Your task to perform on an android device: Play the last video I watched on Youtube Image 0: 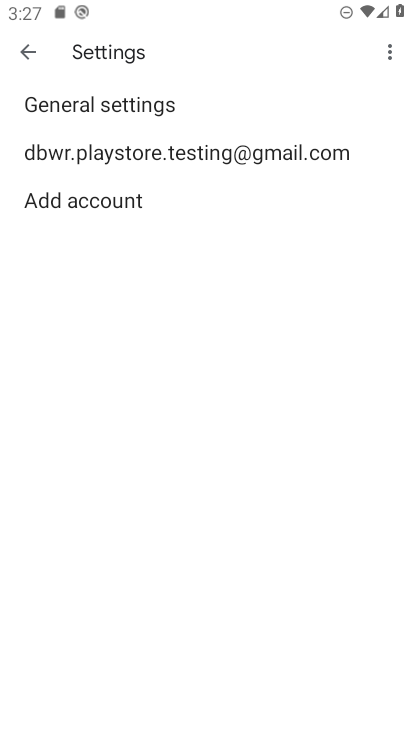
Step 0: press home button
Your task to perform on an android device: Play the last video I watched on Youtube Image 1: 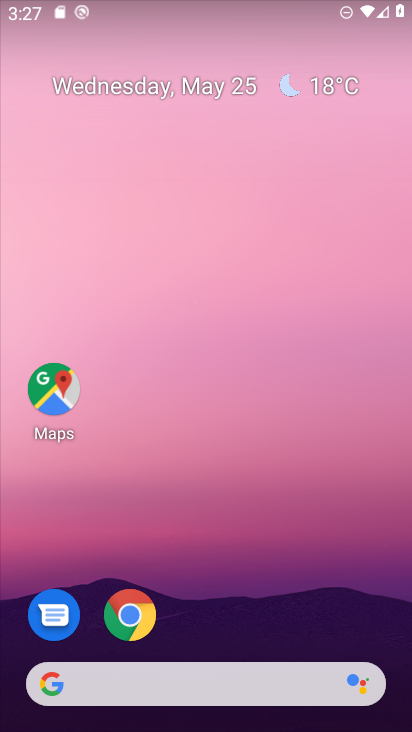
Step 1: drag from (265, 560) to (263, 11)
Your task to perform on an android device: Play the last video I watched on Youtube Image 2: 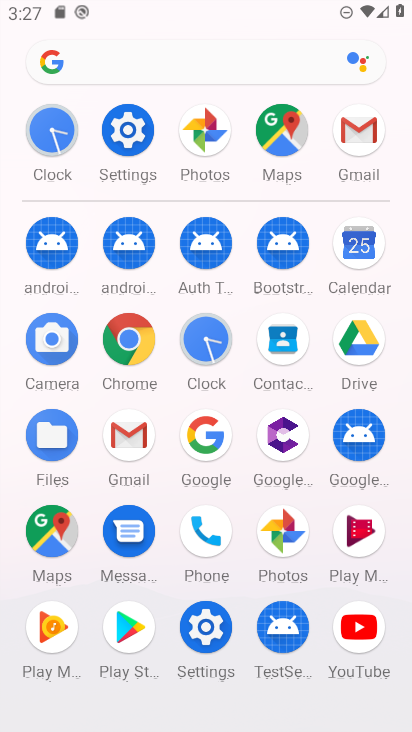
Step 2: click (355, 630)
Your task to perform on an android device: Play the last video I watched on Youtube Image 3: 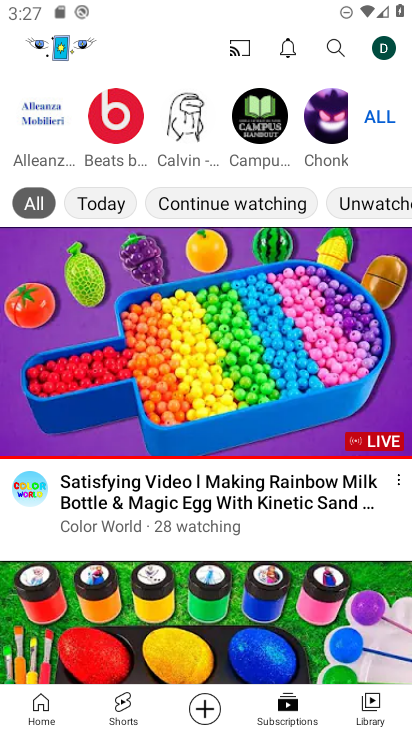
Step 3: click (360, 697)
Your task to perform on an android device: Play the last video I watched on Youtube Image 4: 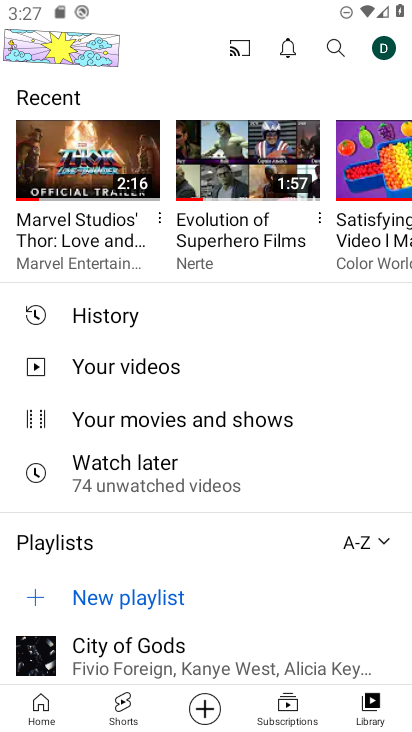
Step 4: click (118, 311)
Your task to perform on an android device: Play the last video I watched on Youtube Image 5: 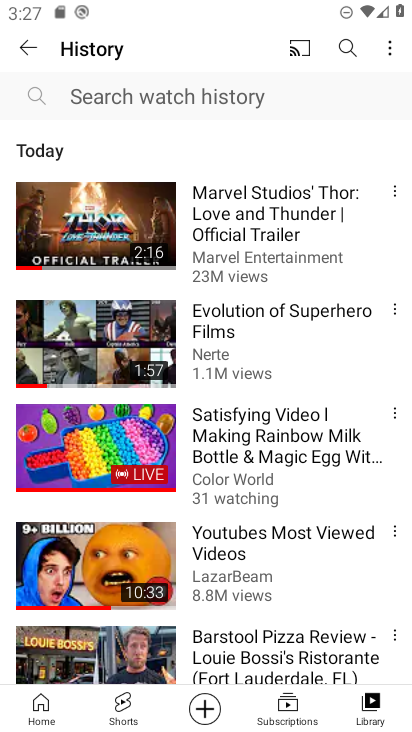
Step 5: click (89, 216)
Your task to perform on an android device: Play the last video I watched on Youtube Image 6: 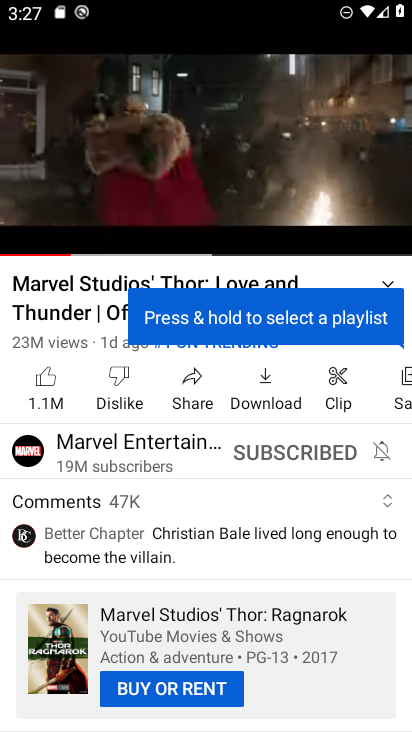
Step 6: task complete